Your task to perform on an android device: turn off location history Image 0: 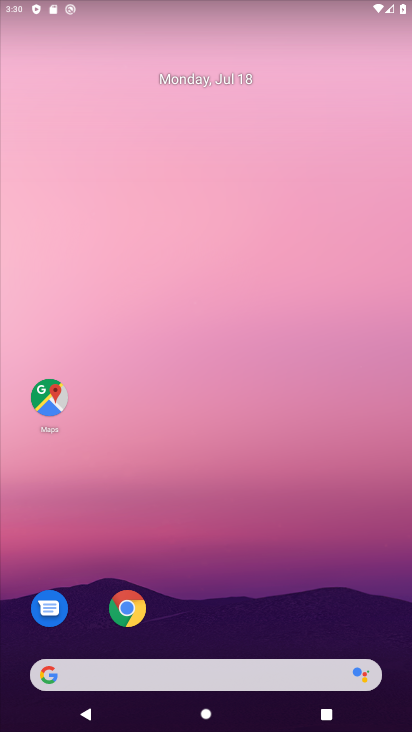
Step 0: drag from (245, 618) to (132, 116)
Your task to perform on an android device: turn off location history Image 1: 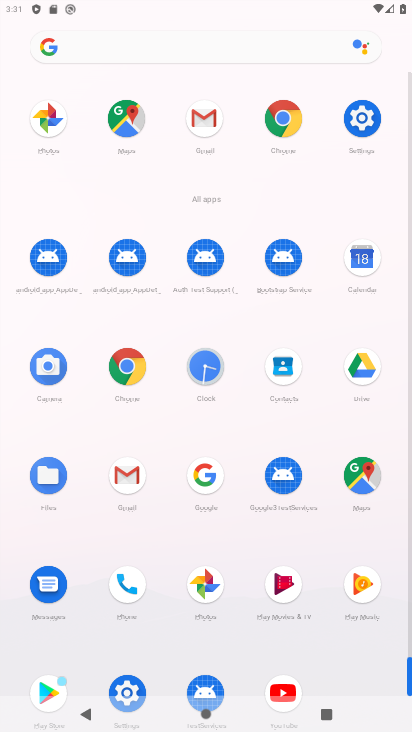
Step 1: click (362, 117)
Your task to perform on an android device: turn off location history Image 2: 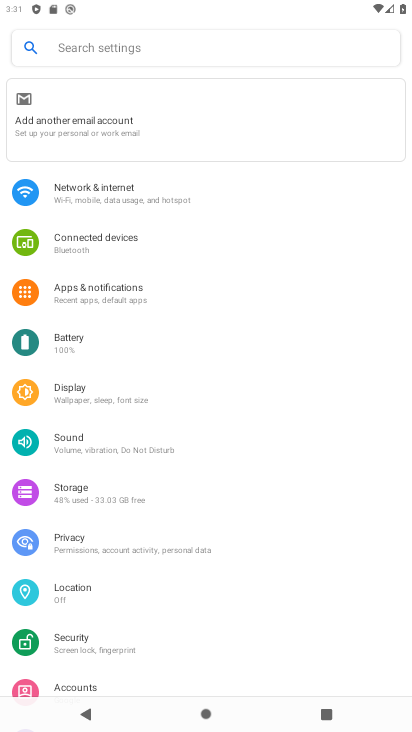
Step 2: click (93, 591)
Your task to perform on an android device: turn off location history Image 3: 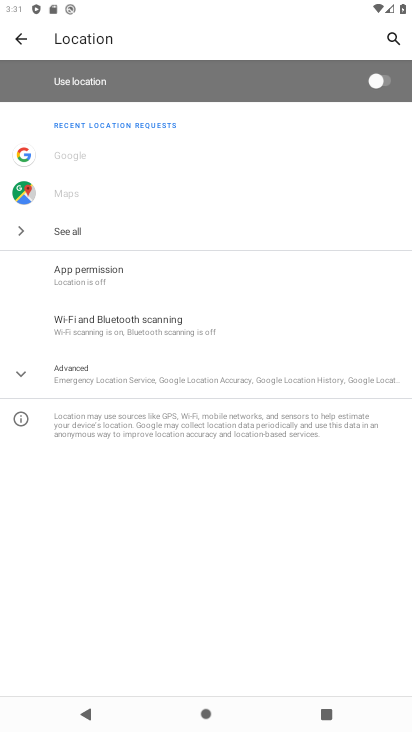
Step 3: task complete